Your task to perform on an android device: turn on the 24-hour format for clock Image 0: 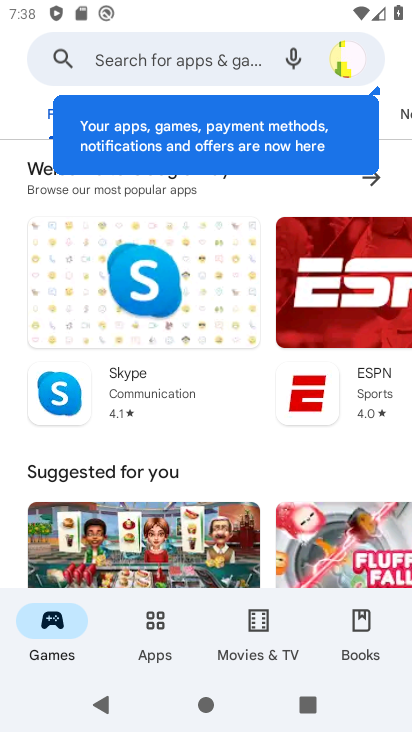
Step 0: press home button
Your task to perform on an android device: turn on the 24-hour format for clock Image 1: 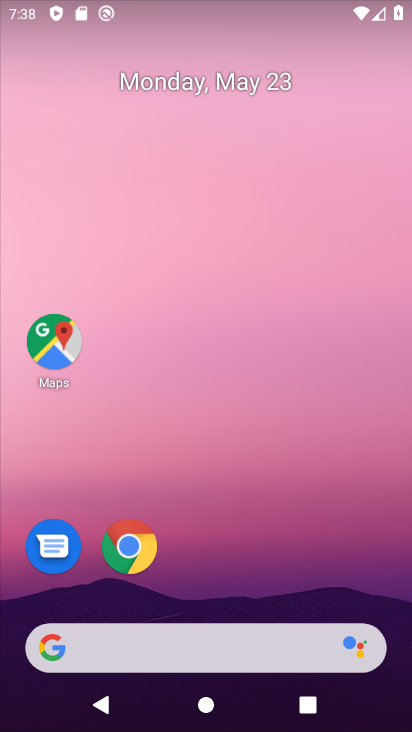
Step 1: drag from (377, 589) to (360, 237)
Your task to perform on an android device: turn on the 24-hour format for clock Image 2: 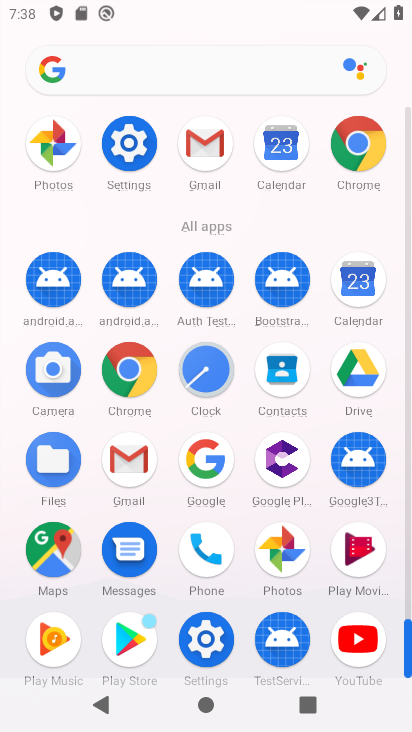
Step 2: click (214, 387)
Your task to perform on an android device: turn on the 24-hour format for clock Image 3: 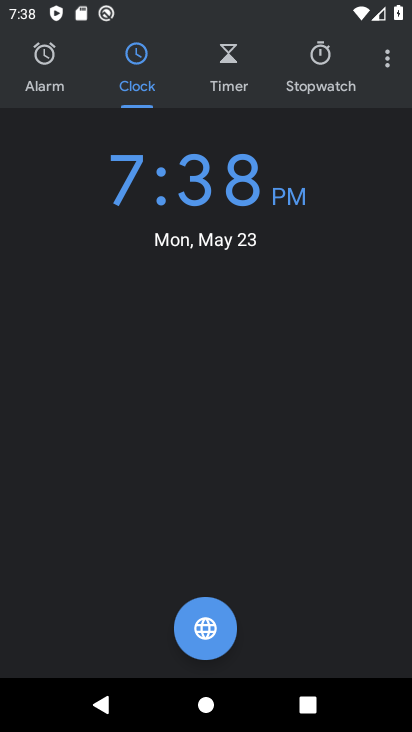
Step 3: click (387, 63)
Your task to perform on an android device: turn on the 24-hour format for clock Image 4: 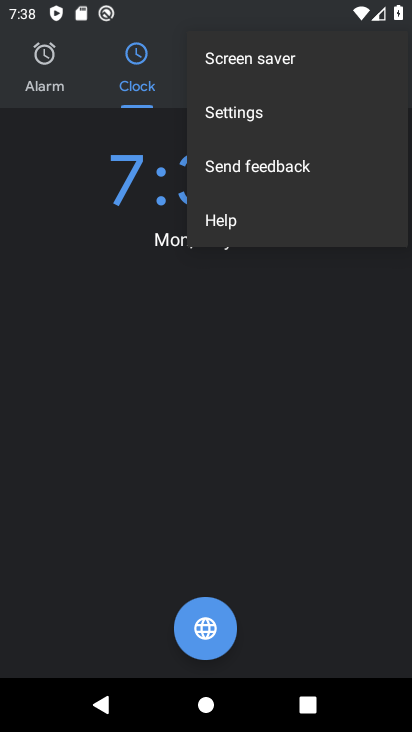
Step 4: click (252, 122)
Your task to perform on an android device: turn on the 24-hour format for clock Image 5: 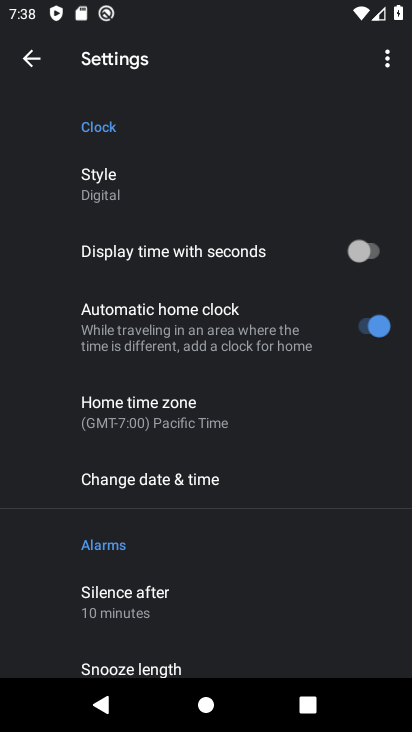
Step 5: drag from (316, 508) to (323, 426)
Your task to perform on an android device: turn on the 24-hour format for clock Image 6: 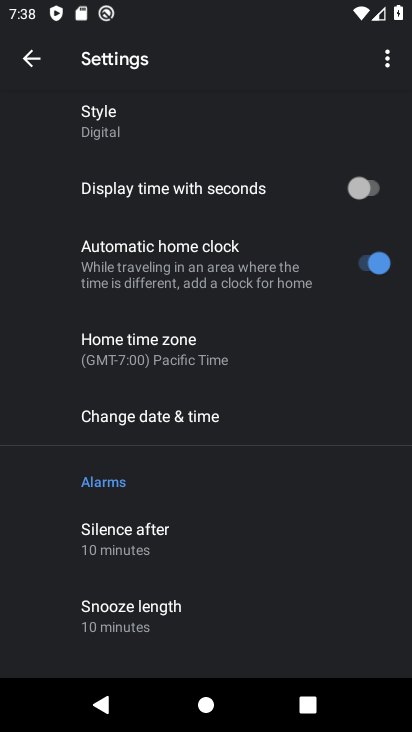
Step 6: drag from (325, 492) to (337, 421)
Your task to perform on an android device: turn on the 24-hour format for clock Image 7: 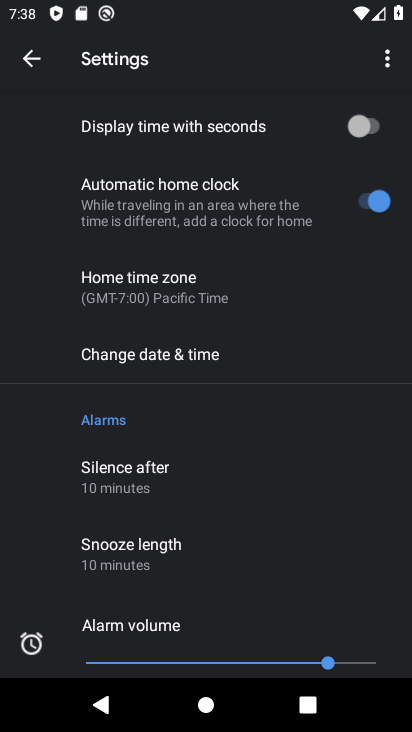
Step 7: drag from (333, 503) to (335, 427)
Your task to perform on an android device: turn on the 24-hour format for clock Image 8: 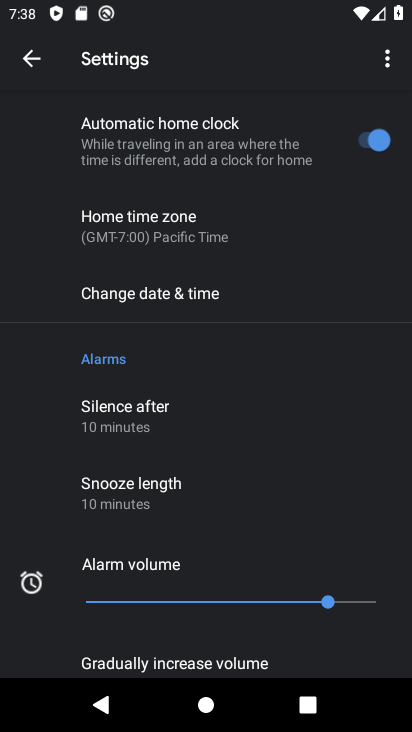
Step 8: drag from (332, 503) to (342, 418)
Your task to perform on an android device: turn on the 24-hour format for clock Image 9: 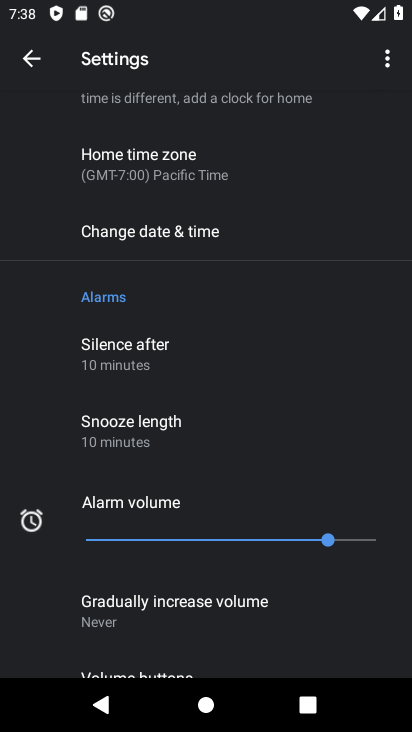
Step 9: drag from (346, 526) to (349, 433)
Your task to perform on an android device: turn on the 24-hour format for clock Image 10: 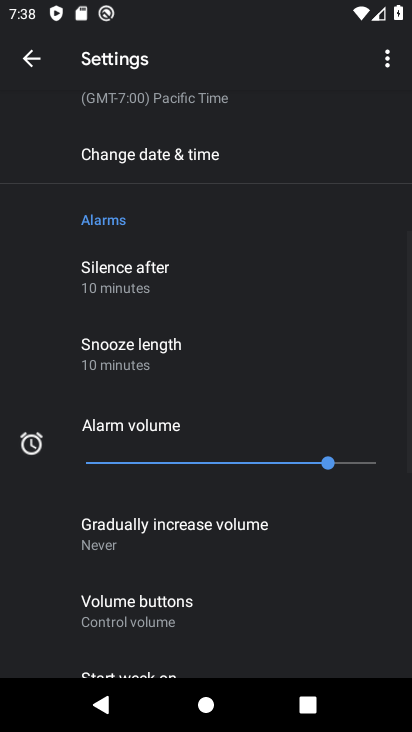
Step 10: drag from (343, 528) to (352, 447)
Your task to perform on an android device: turn on the 24-hour format for clock Image 11: 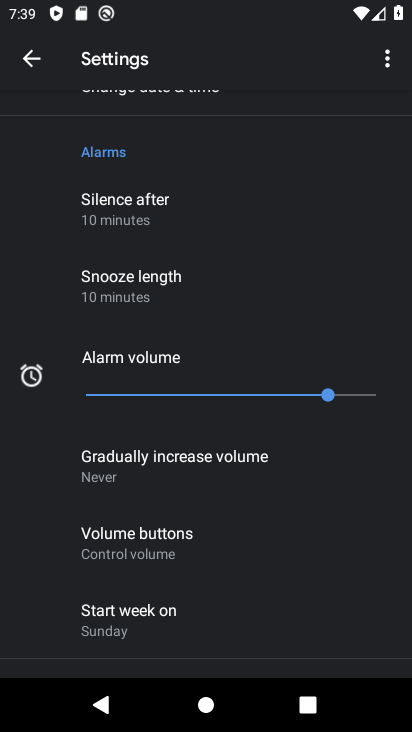
Step 11: drag from (350, 498) to (356, 421)
Your task to perform on an android device: turn on the 24-hour format for clock Image 12: 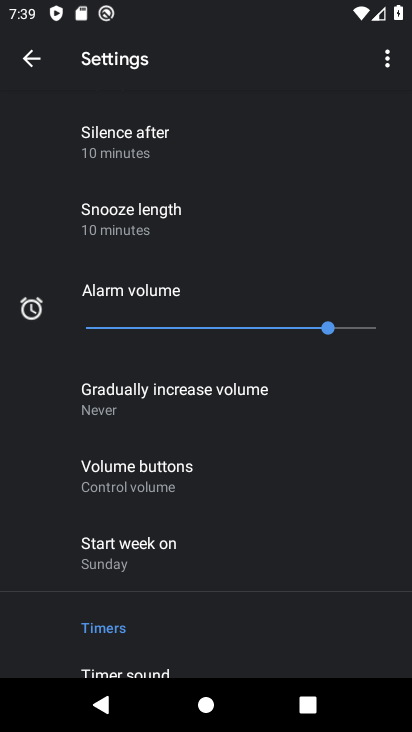
Step 12: drag from (361, 507) to (363, 415)
Your task to perform on an android device: turn on the 24-hour format for clock Image 13: 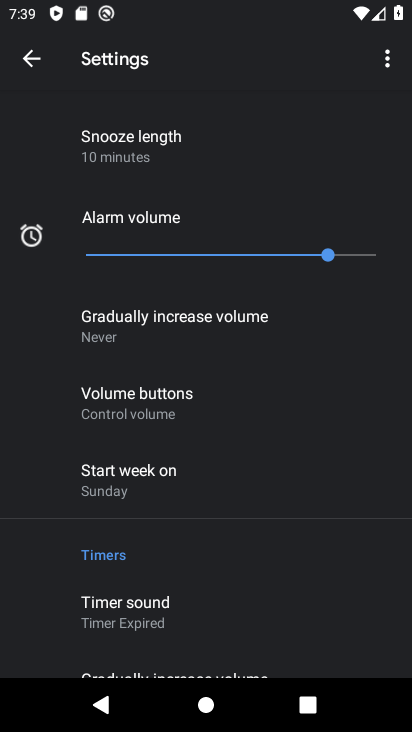
Step 13: drag from (347, 543) to (346, 468)
Your task to perform on an android device: turn on the 24-hour format for clock Image 14: 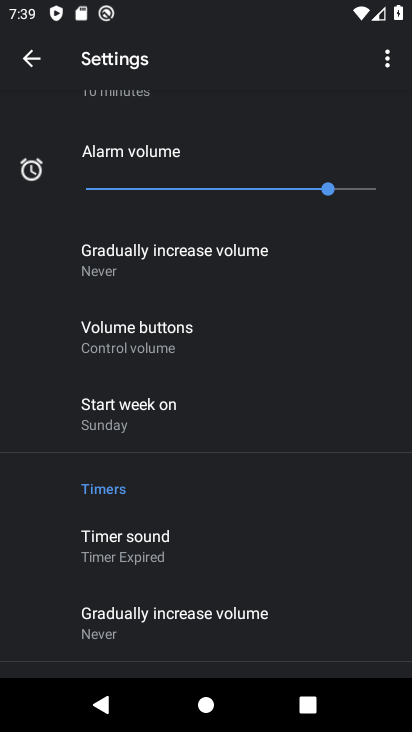
Step 14: drag from (347, 566) to (355, 446)
Your task to perform on an android device: turn on the 24-hour format for clock Image 15: 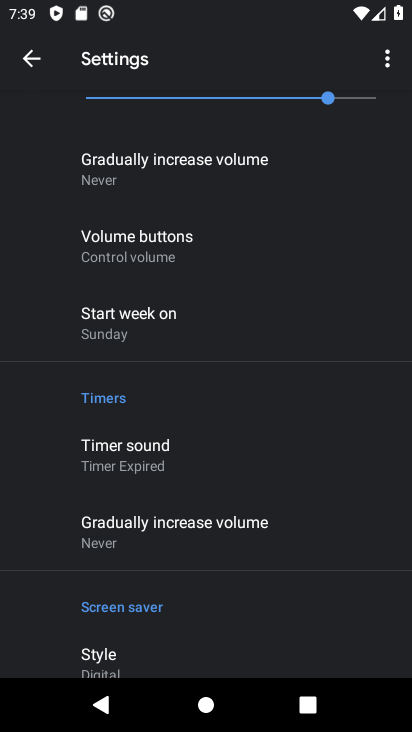
Step 15: drag from (333, 554) to (350, 361)
Your task to perform on an android device: turn on the 24-hour format for clock Image 16: 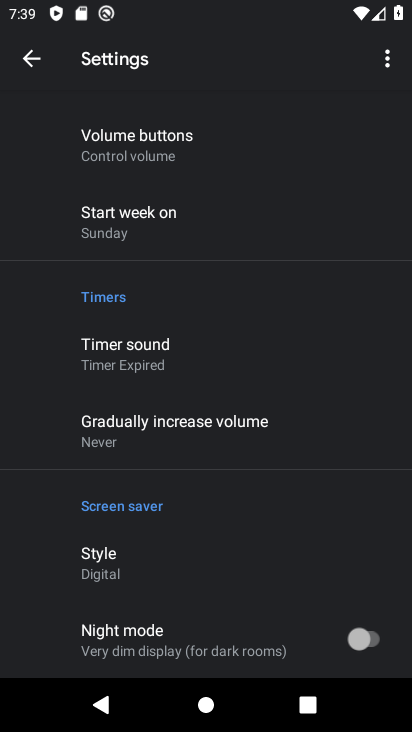
Step 16: drag from (346, 314) to (339, 418)
Your task to perform on an android device: turn on the 24-hour format for clock Image 17: 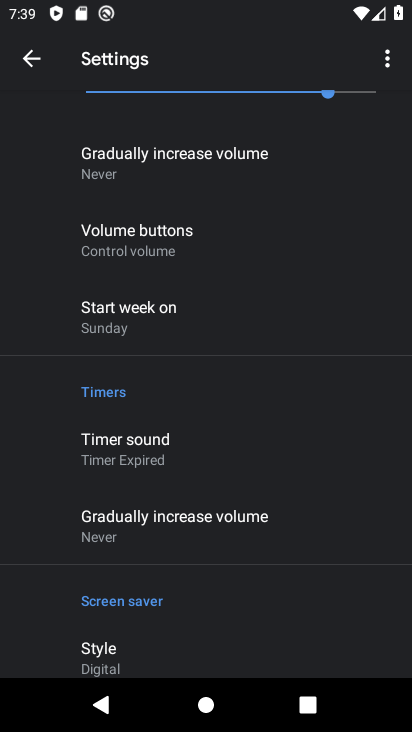
Step 17: drag from (337, 289) to (338, 405)
Your task to perform on an android device: turn on the 24-hour format for clock Image 18: 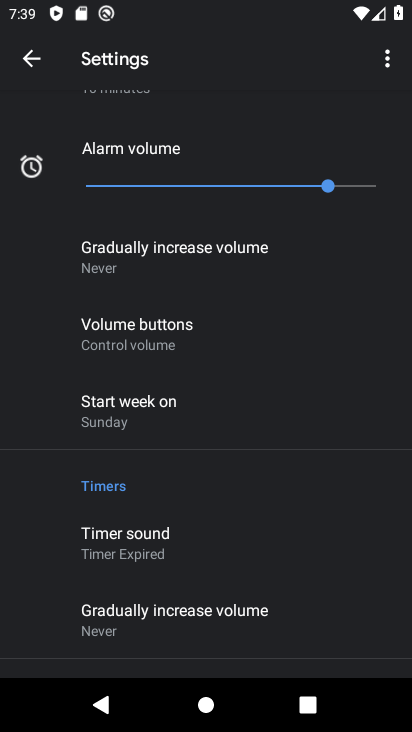
Step 18: drag from (359, 256) to (360, 374)
Your task to perform on an android device: turn on the 24-hour format for clock Image 19: 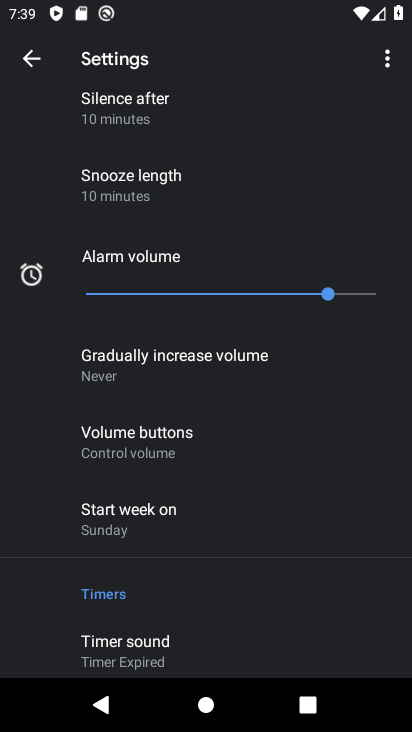
Step 19: drag from (362, 232) to (360, 391)
Your task to perform on an android device: turn on the 24-hour format for clock Image 20: 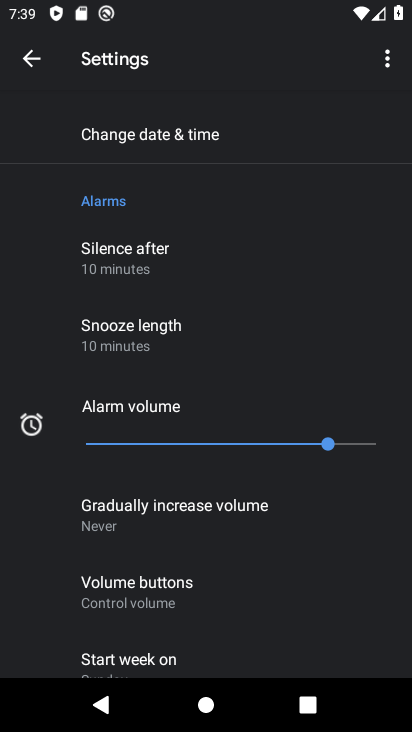
Step 20: drag from (354, 280) to (353, 402)
Your task to perform on an android device: turn on the 24-hour format for clock Image 21: 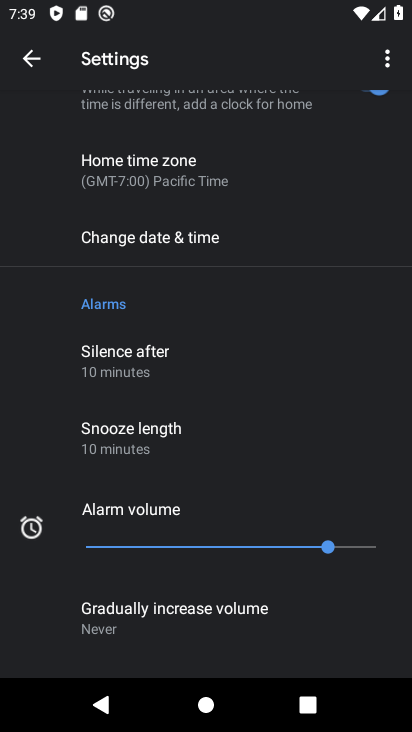
Step 21: click (235, 250)
Your task to perform on an android device: turn on the 24-hour format for clock Image 22: 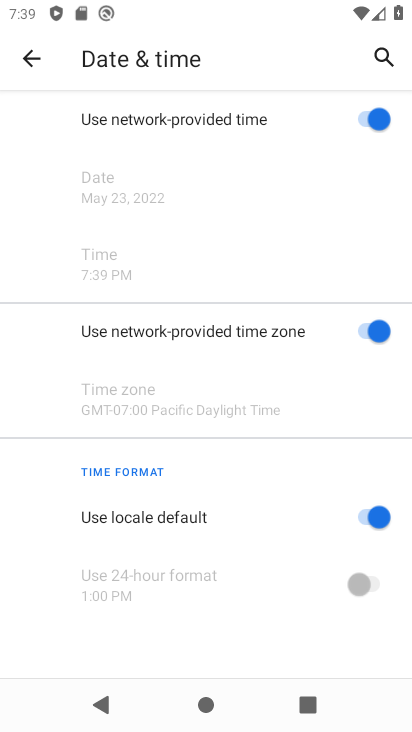
Step 22: drag from (276, 496) to (277, 395)
Your task to perform on an android device: turn on the 24-hour format for clock Image 23: 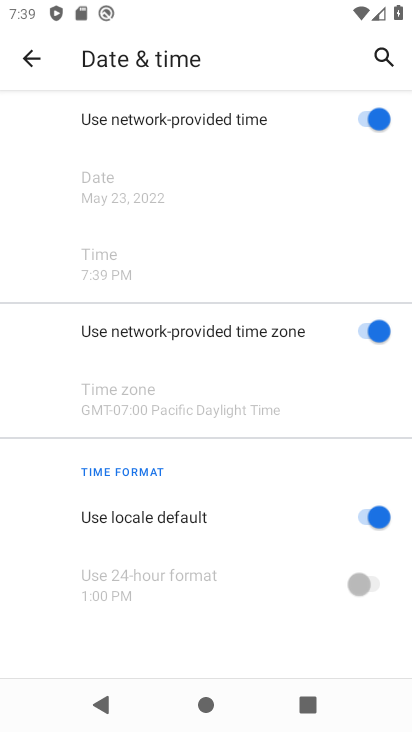
Step 23: click (372, 516)
Your task to perform on an android device: turn on the 24-hour format for clock Image 24: 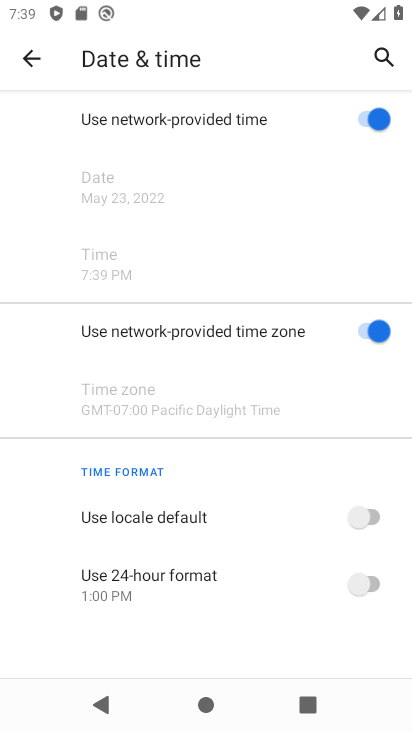
Step 24: click (354, 581)
Your task to perform on an android device: turn on the 24-hour format for clock Image 25: 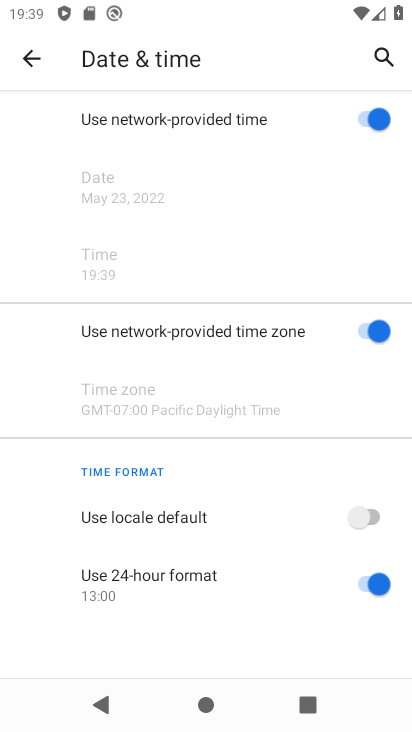
Step 25: task complete